Your task to perform on an android device: turn on showing notifications on the lock screen Image 0: 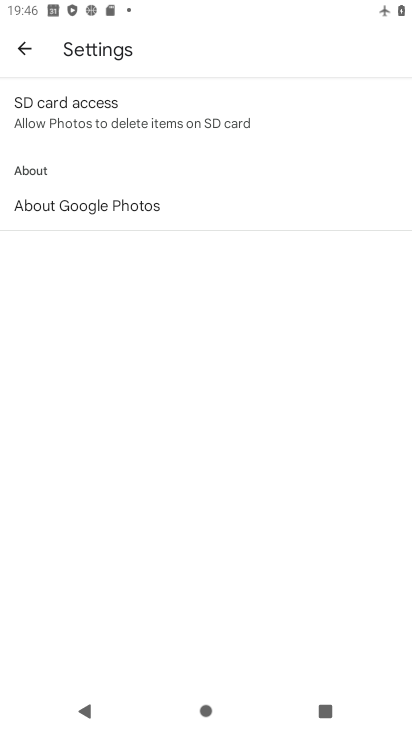
Step 0: press home button
Your task to perform on an android device: turn on showing notifications on the lock screen Image 1: 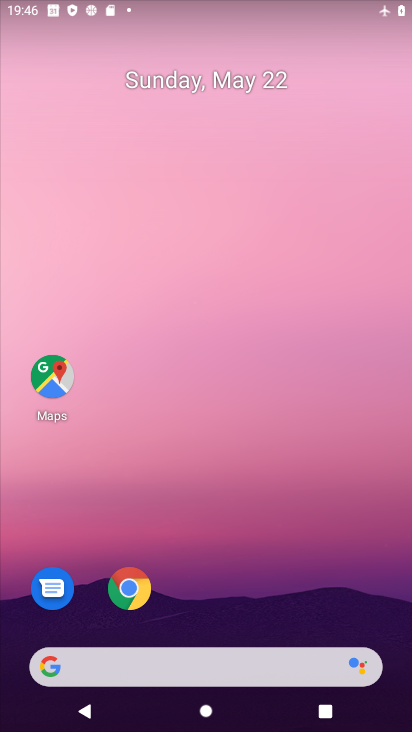
Step 1: drag from (251, 579) to (225, 20)
Your task to perform on an android device: turn on showing notifications on the lock screen Image 2: 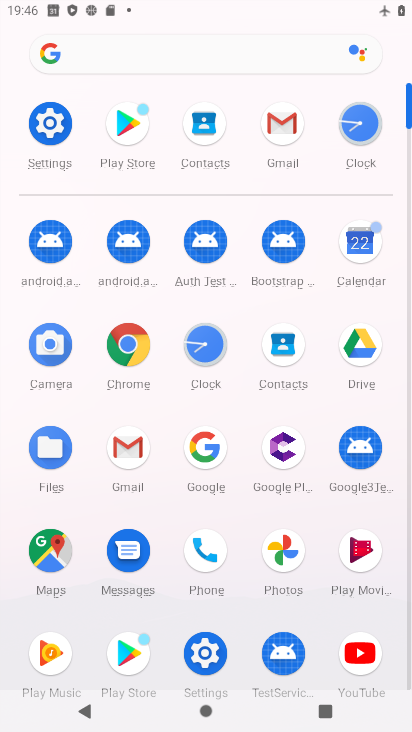
Step 2: click (52, 125)
Your task to perform on an android device: turn on showing notifications on the lock screen Image 3: 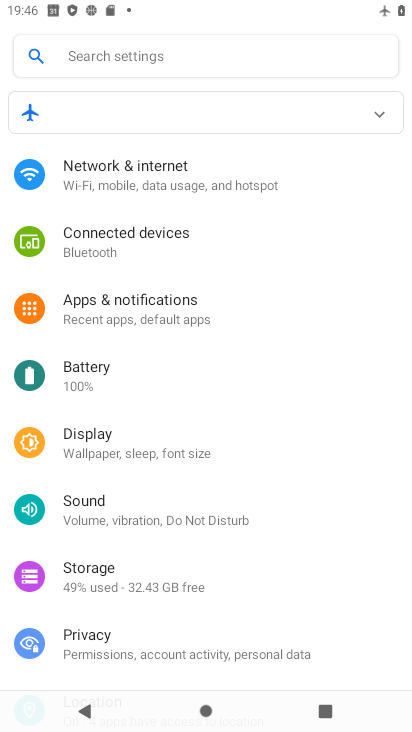
Step 3: click (135, 291)
Your task to perform on an android device: turn on showing notifications on the lock screen Image 4: 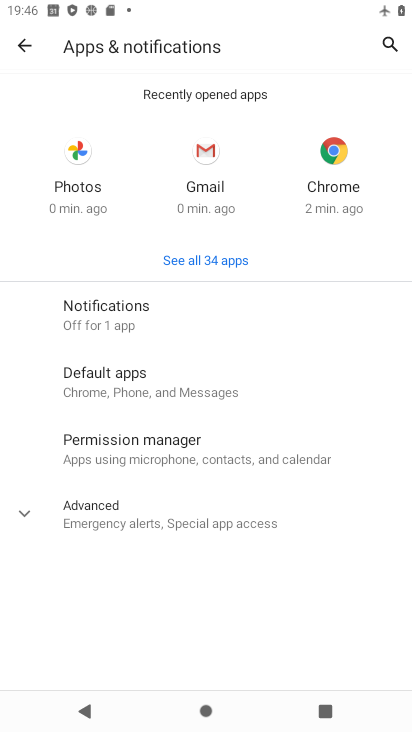
Step 4: click (110, 308)
Your task to perform on an android device: turn on showing notifications on the lock screen Image 5: 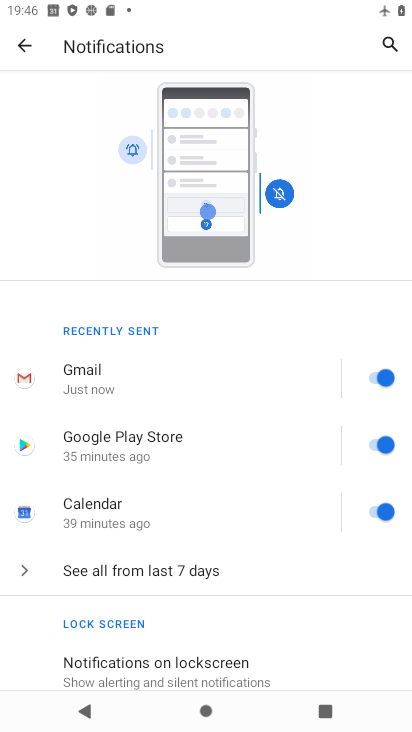
Step 5: click (175, 663)
Your task to perform on an android device: turn on showing notifications on the lock screen Image 6: 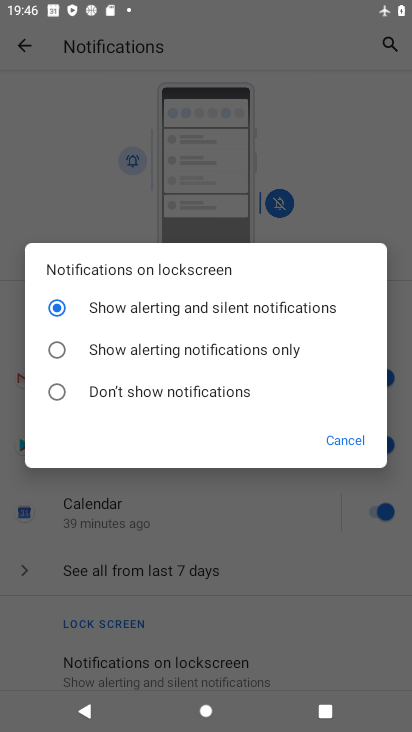
Step 6: task complete